Your task to perform on an android device: turn on priority inbox in the gmail app Image 0: 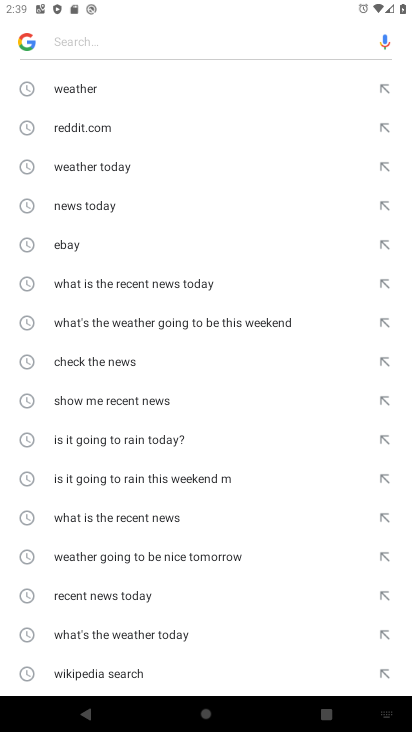
Step 0: press home button
Your task to perform on an android device: turn on priority inbox in the gmail app Image 1: 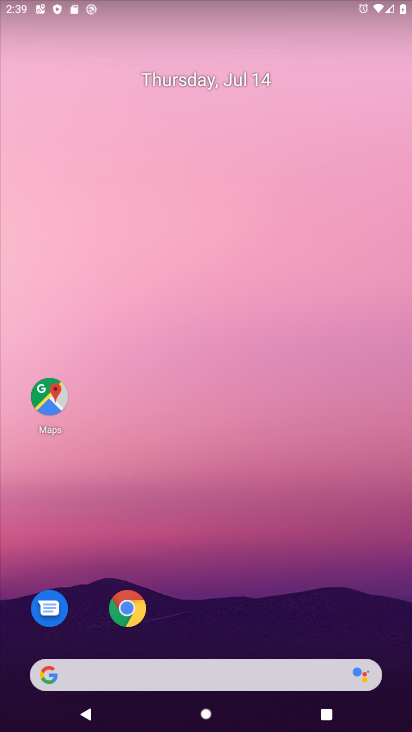
Step 1: drag from (232, 730) to (224, 191)
Your task to perform on an android device: turn on priority inbox in the gmail app Image 2: 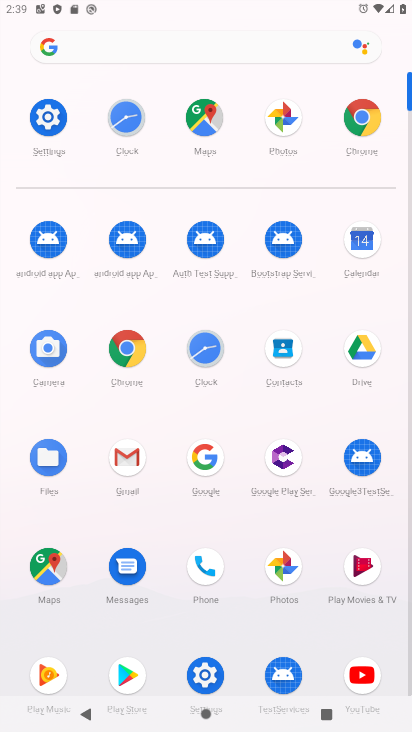
Step 2: click (123, 463)
Your task to perform on an android device: turn on priority inbox in the gmail app Image 3: 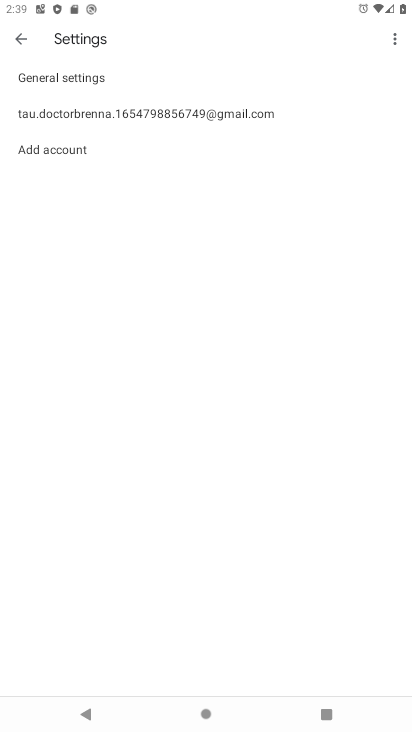
Step 3: click (125, 110)
Your task to perform on an android device: turn on priority inbox in the gmail app Image 4: 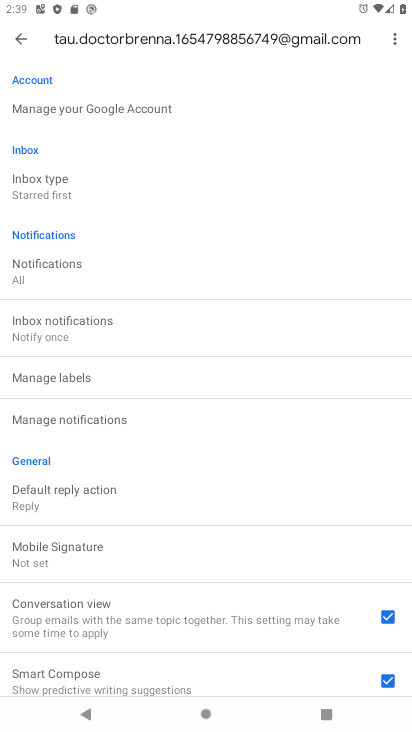
Step 4: click (46, 187)
Your task to perform on an android device: turn on priority inbox in the gmail app Image 5: 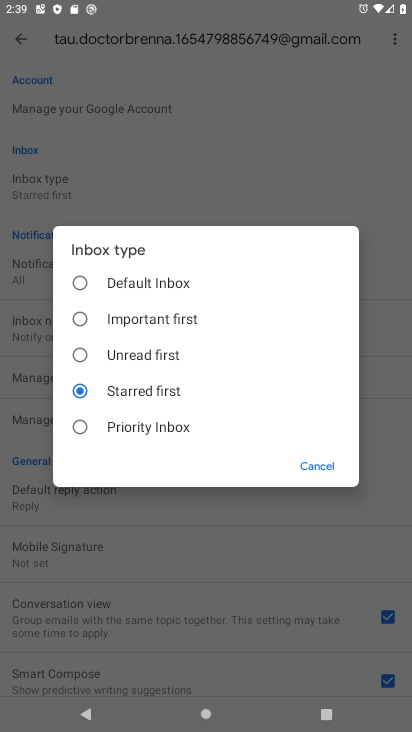
Step 5: click (75, 423)
Your task to perform on an android device: turn on priority inbox in the gmail app Image 6: 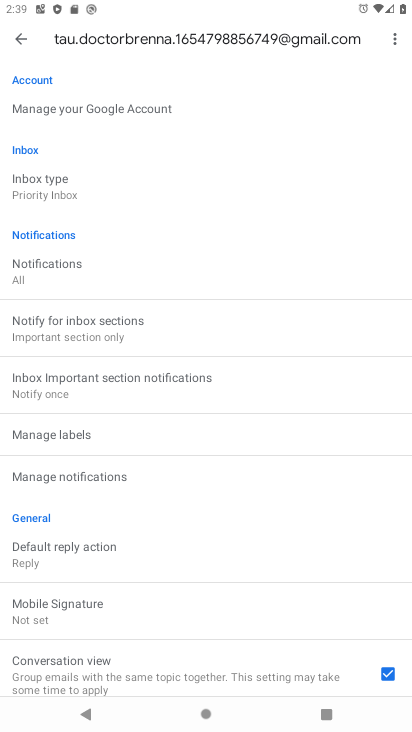
Step 6: task complete